Your task to perform on an android device: Show me recent news Image 0: 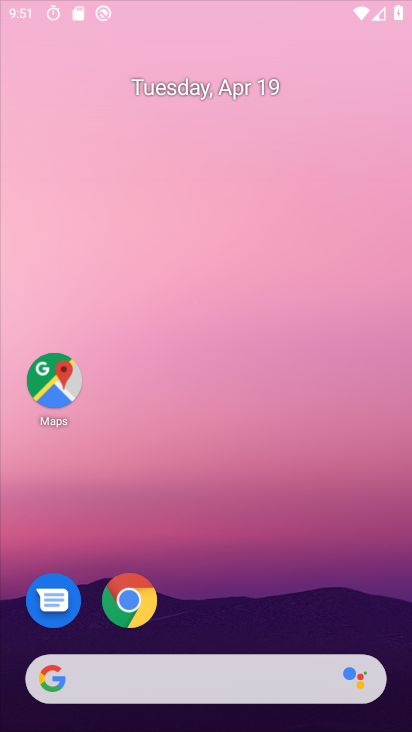
Step 0: drag from (377, 545) to (340, 172)
Your task to perform on an android device: Show me recent news Image 1: 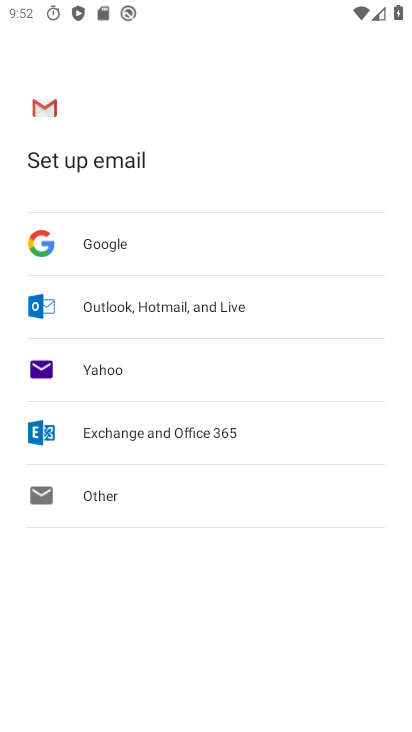
Step 1: press home button
Your task to perform on an android device: Show me recent news Image 2: 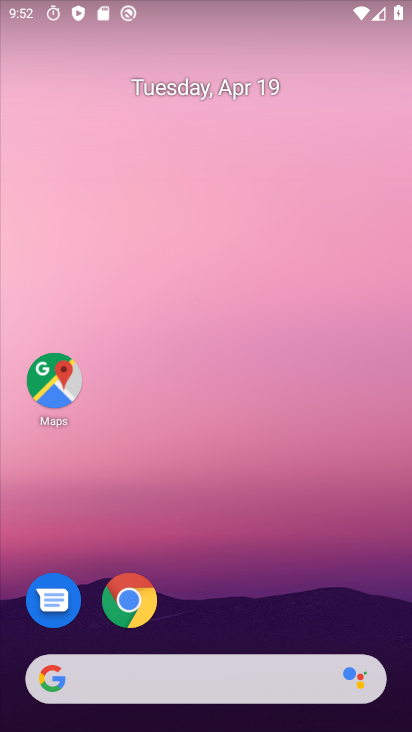
Step 2: click (122, 609)
Your task to perform on an android device: Show me recent news Image 3: 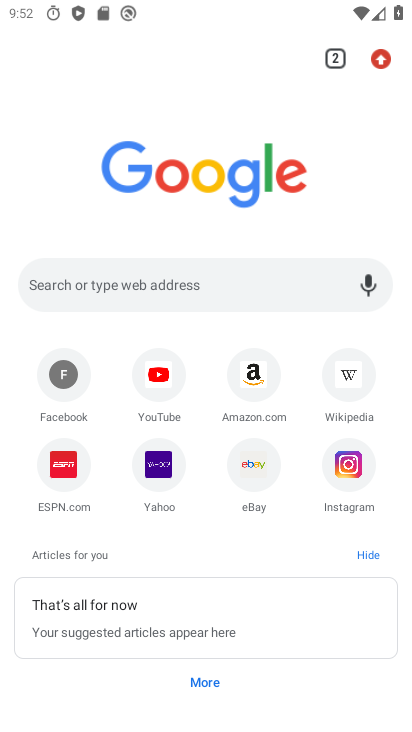
Step 3: click (226, 278)
Your task to perform on an android device: Show me recent news Image 4: 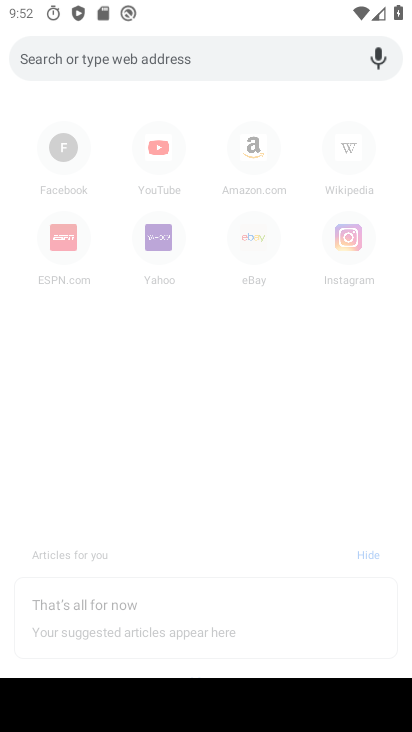
Step 4: type "recent news"
Your task to perform on an android device: Show me recent news Image 5: 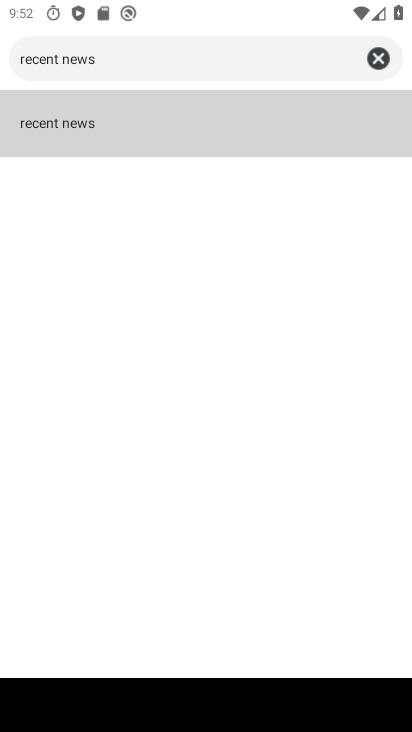
Step 5: click (265, 122)
Your task to perform on an android device: Show me recent news Image 6: 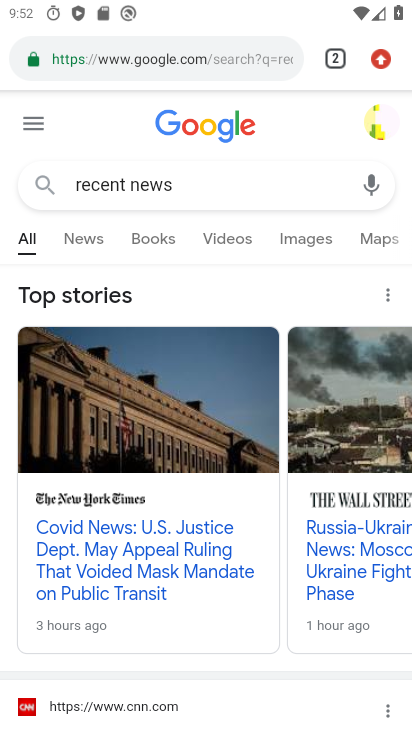
Step 6: task complete